Your task to perform on an android device: turn on airplane mode Image 0: 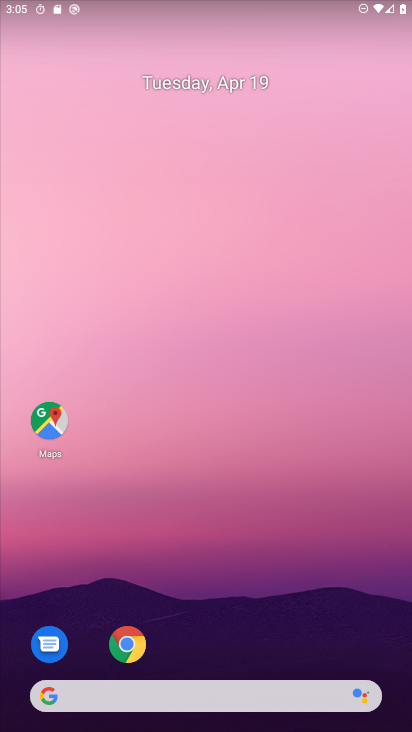
Step 0: drag from (183, 602) to (139, 84)
Your task to perform on an android device: turn on airplane mode Image 1: 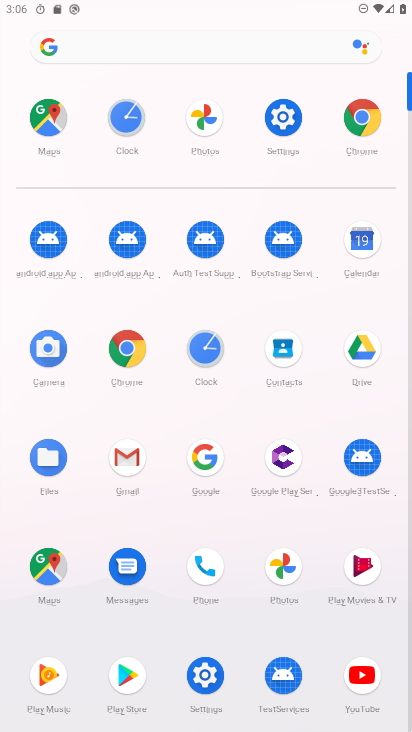
Step 1: click (282, 115)
Your task to perform on an android device: turn on airplane mode Image 2: 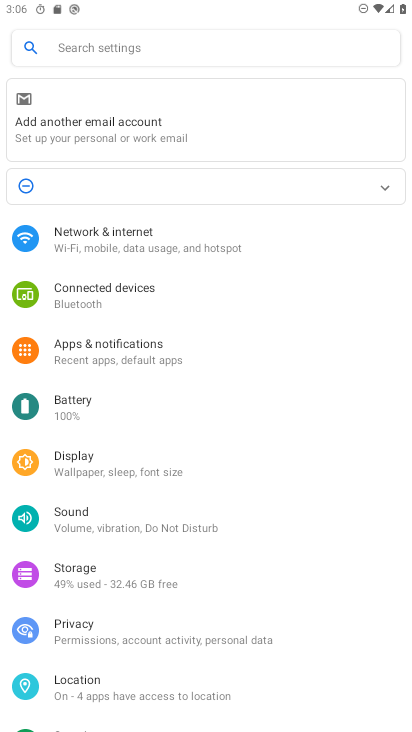
Step 2: click (127, 251)
Your task to perform on an android device: turn on airplane mode Image 3: 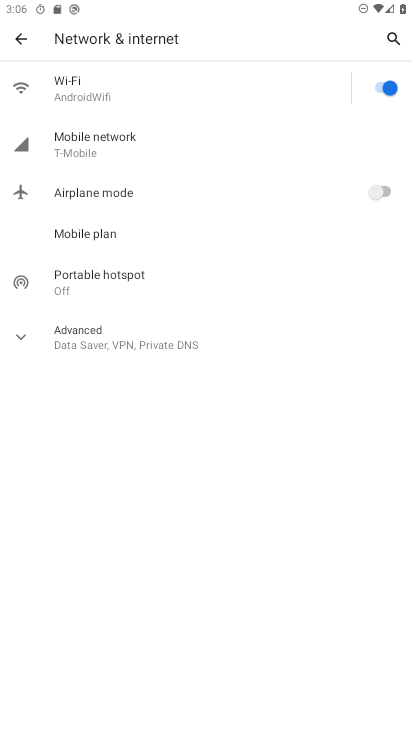
Step 3: click (383, 191)
Your task to perform on an android device: turn on airplane mode Image 4: 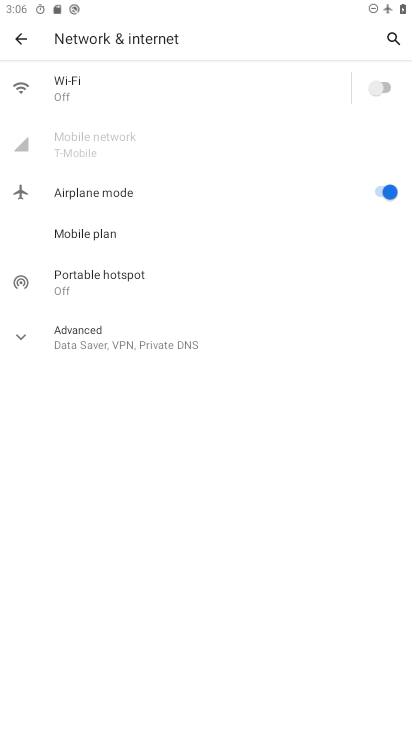
Step 4: task complete